Your task to perform on an android device: Go to Google maps Image 0: 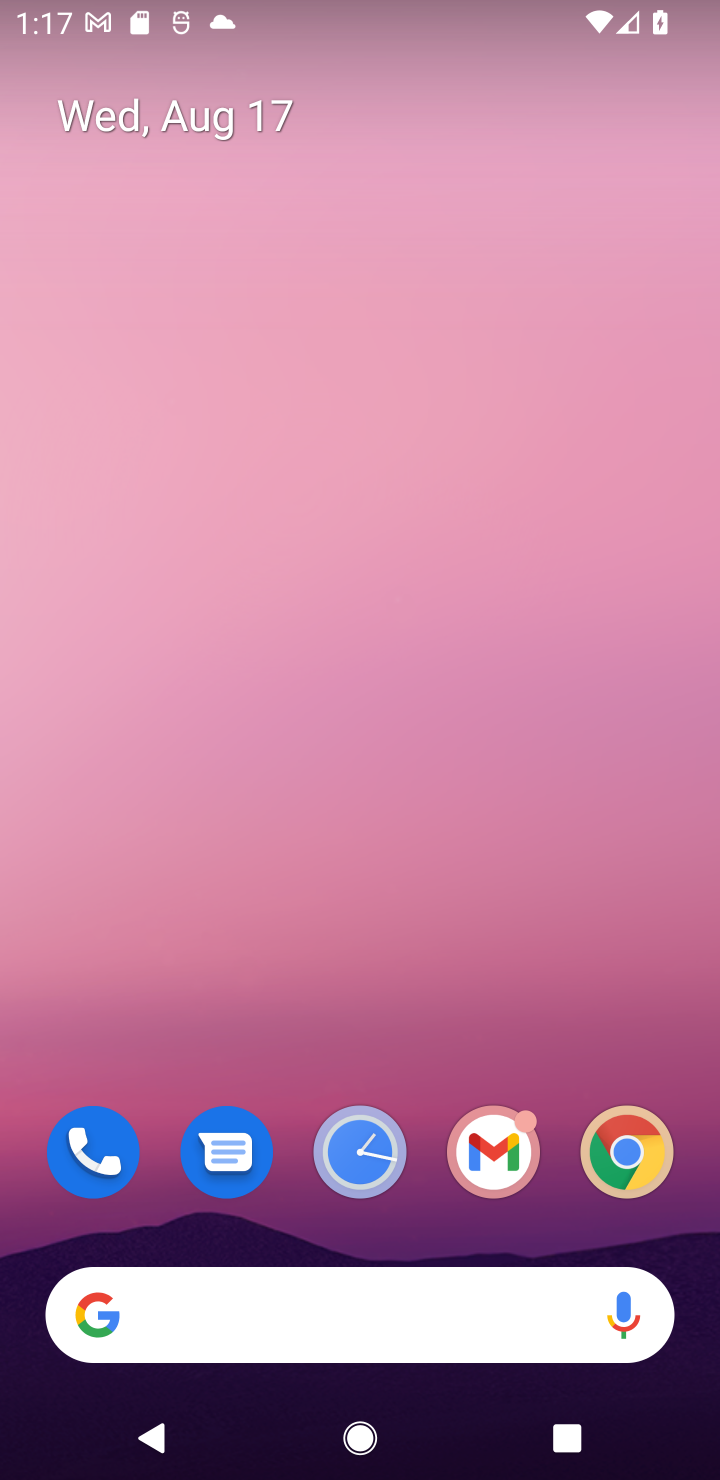
Step 0: drag from (521, 952) to (256, 84)
Your task to perform on an android device: Go to Google maps Image 1: 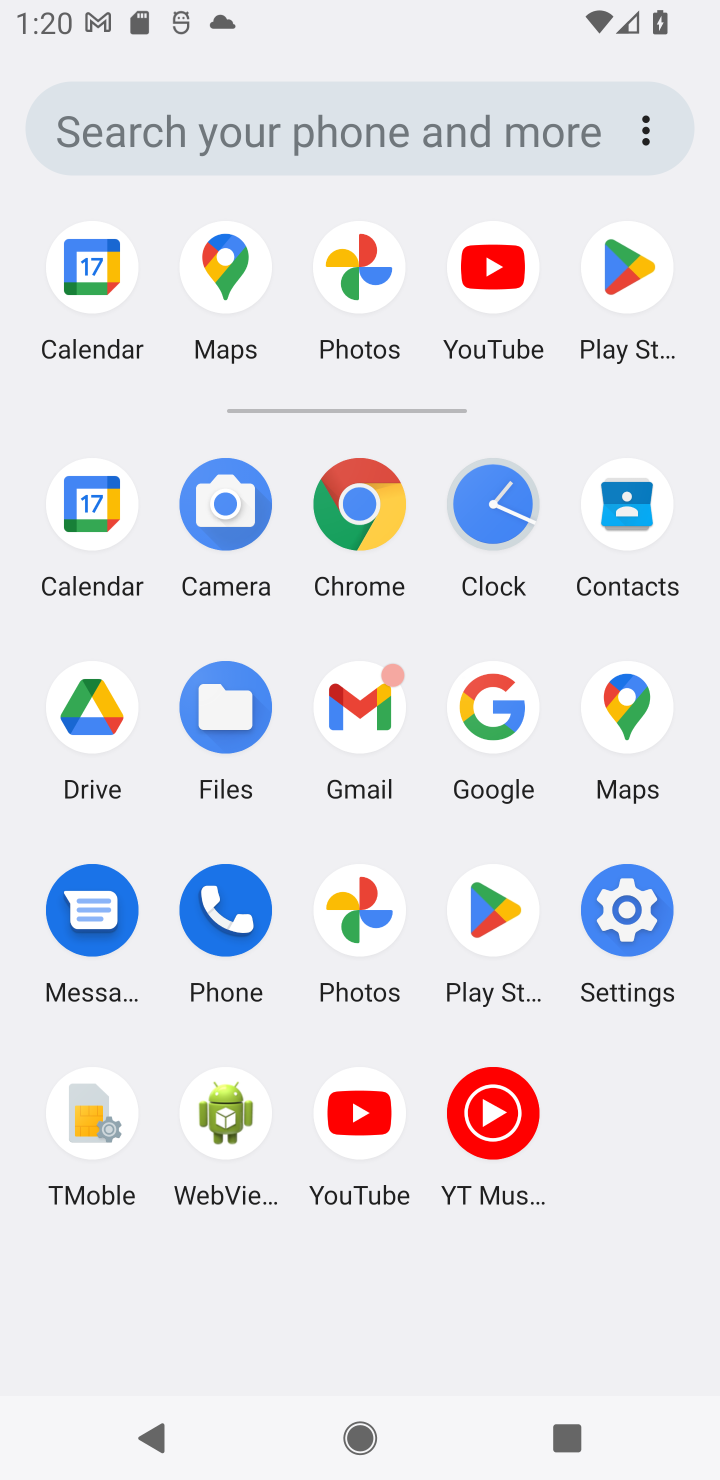
Step 1: click (600, 719)
Your task to perform on an android device: Go to Google maps Image 2: 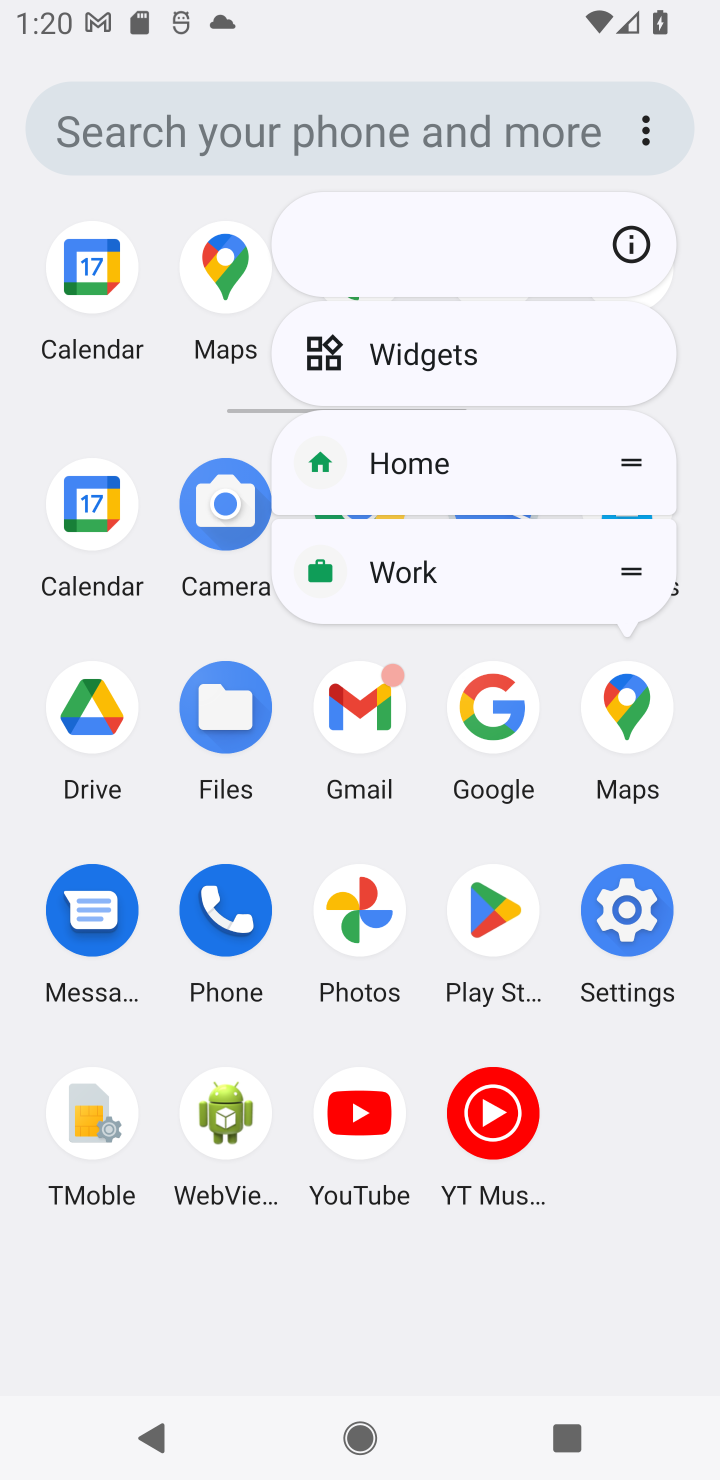
Step 2: click (628, 719)
Your task to perform on an android device: Go to Google maps Image 3: 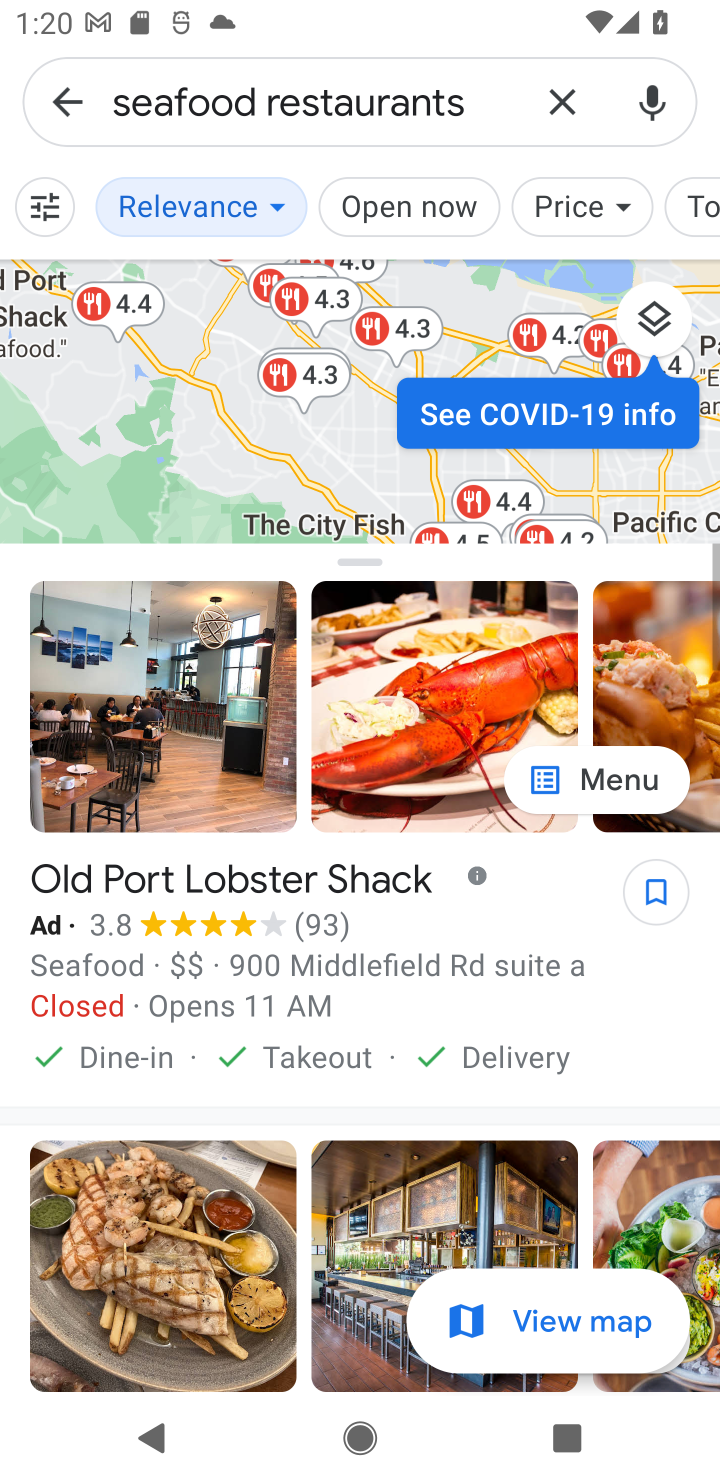
Step 3: click (562, 103)
Your task to perform on an android device: Go to Google maps Image 4: 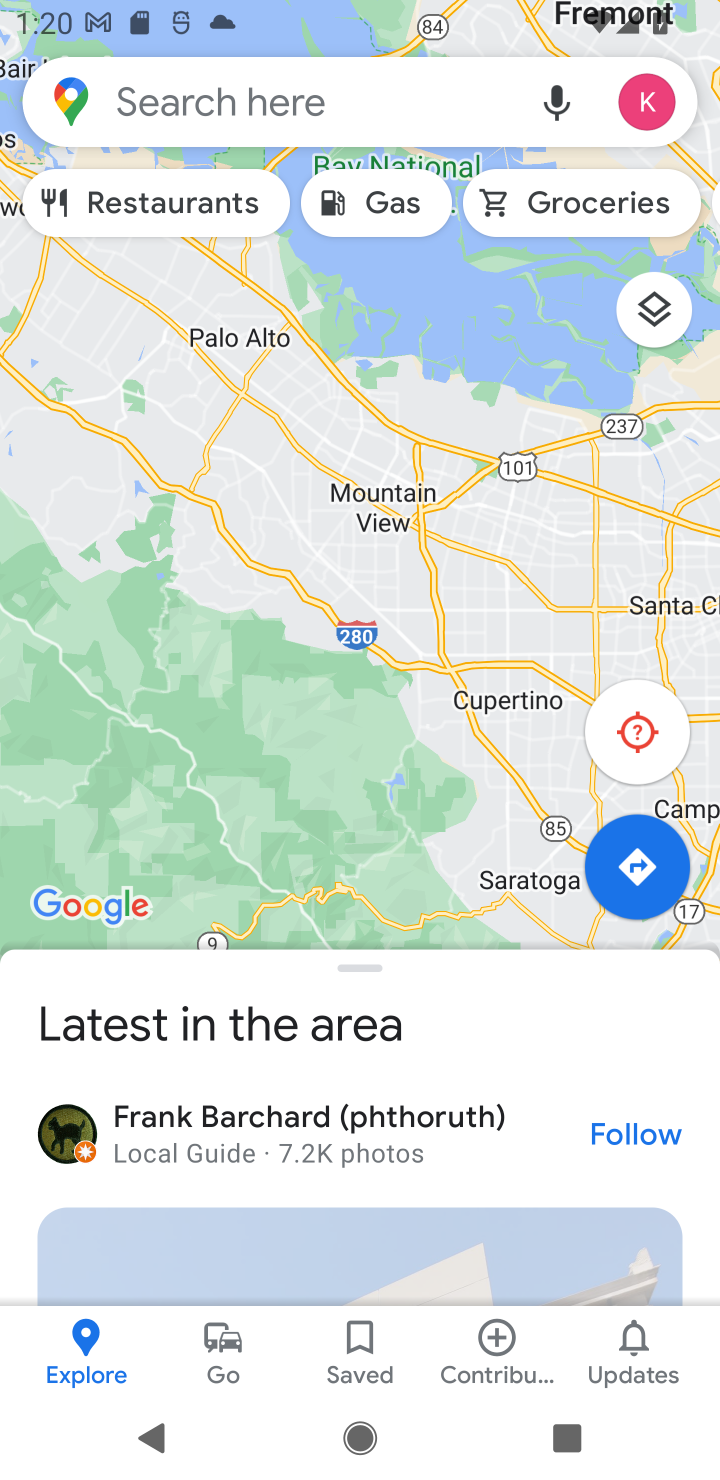
Step 4: task complete